Your task to perform on an android device: View the shopping cart on newegg. Image 0: 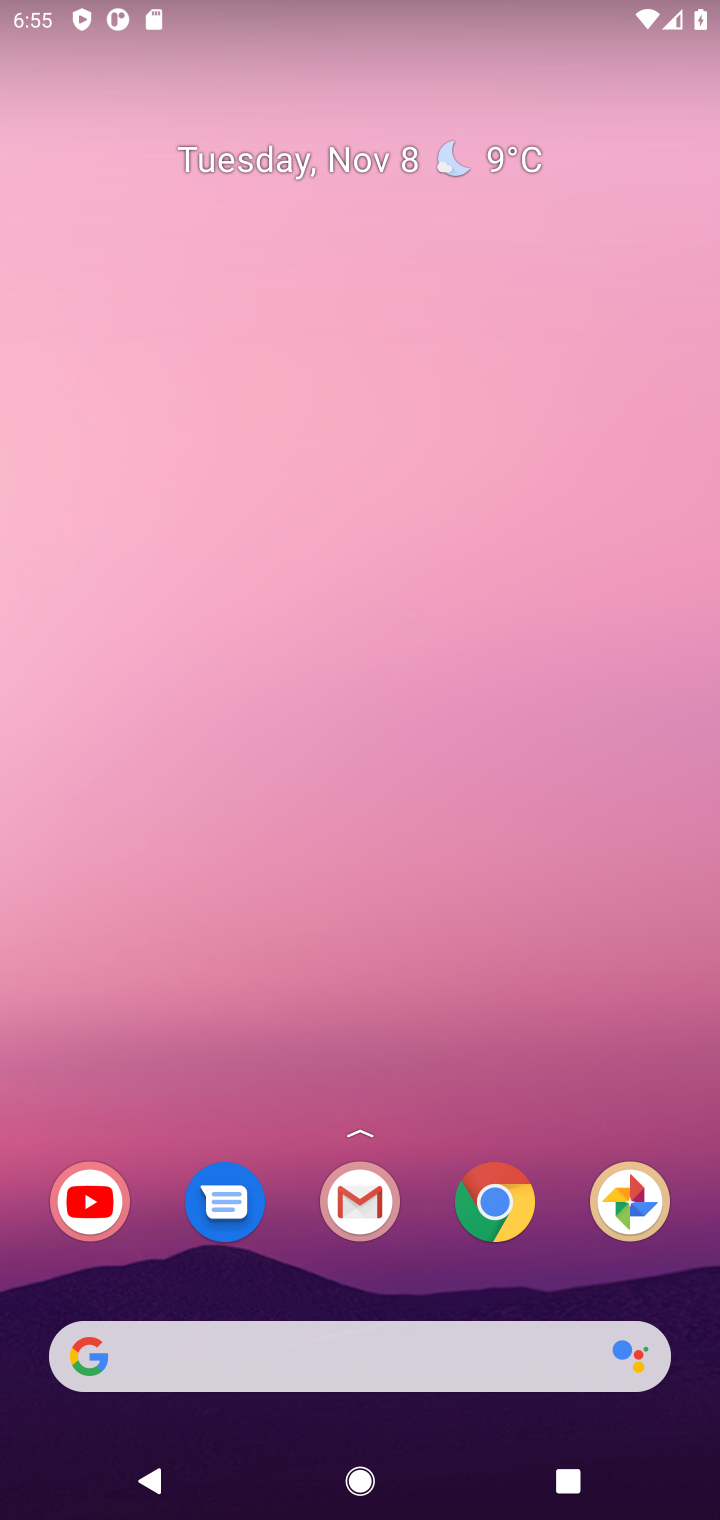
Step 0: click (341, 1381)
Your task to perform on an android device: View the shopping cart on newegg. Image 1: 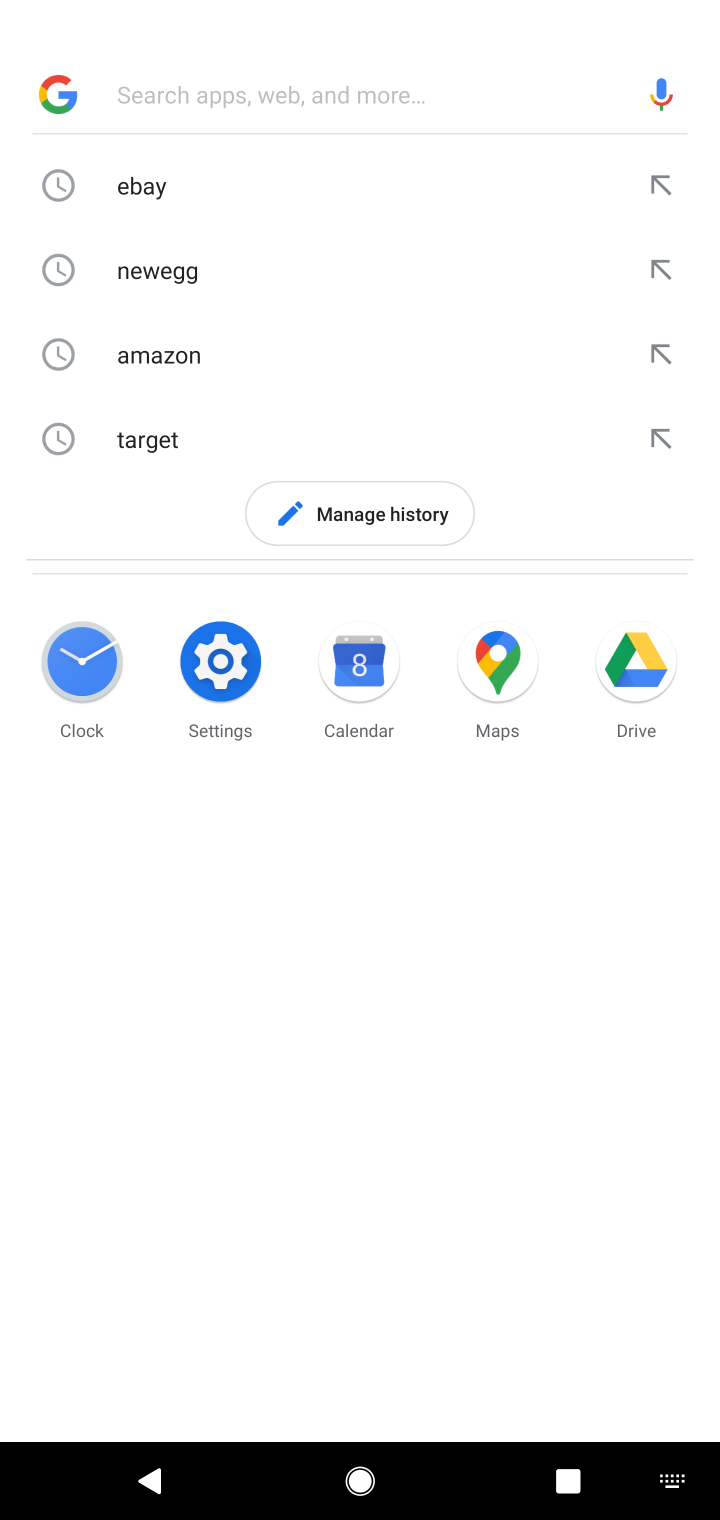
Step 1: click (265, 290)
Your task to perform on an android device: View the shopping cart on newegg. Image 2: 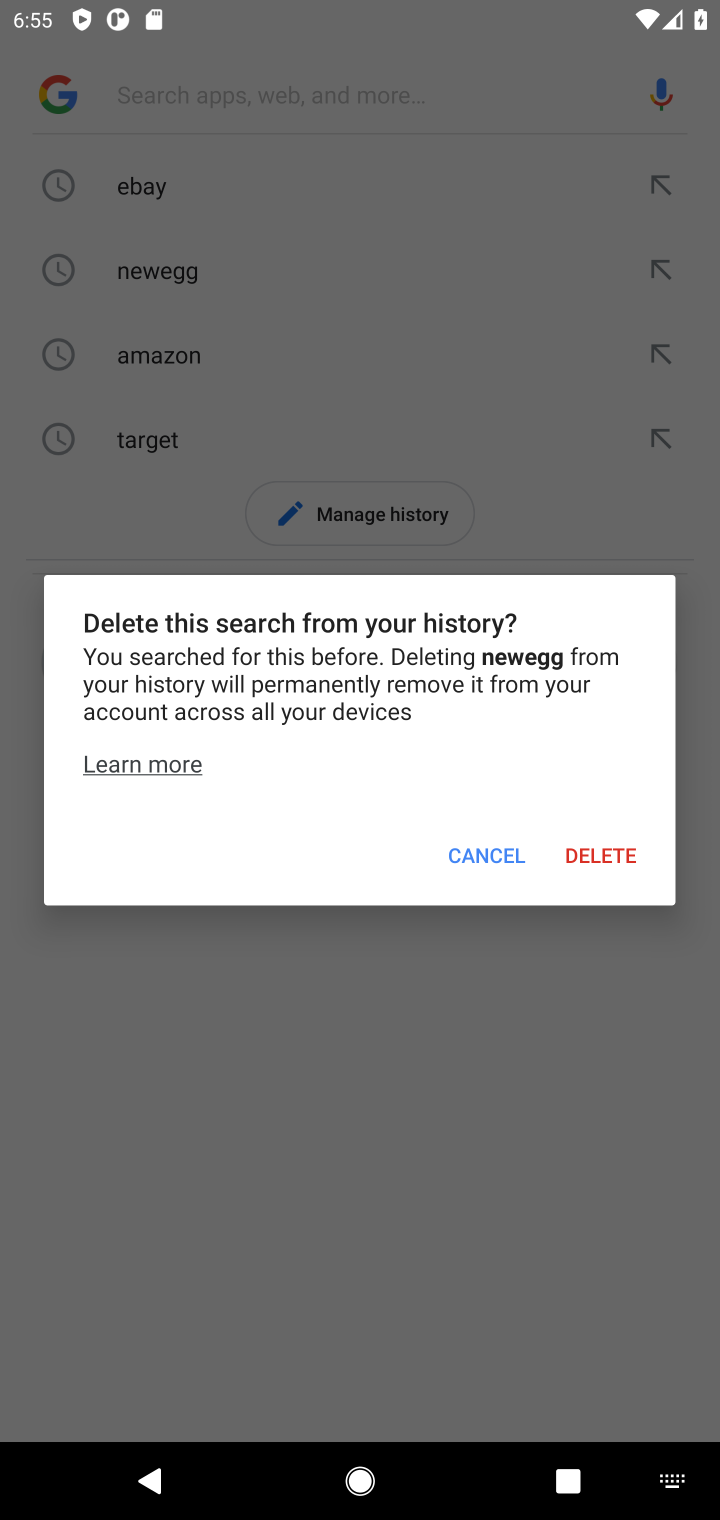
Step 2: click (497, 860)
Your task to perform on an android device: View the shopping cart on newegg. Image 3: 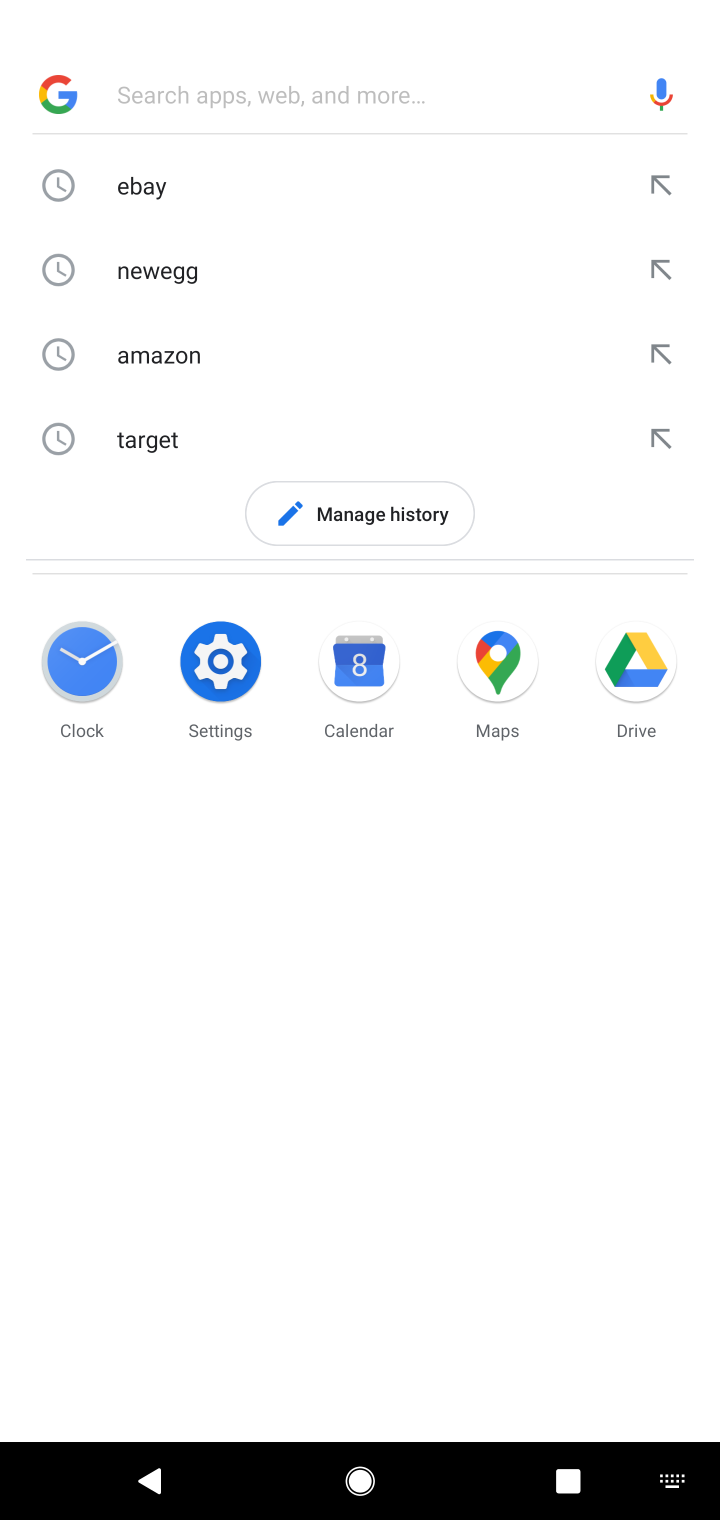
Step 3: type "newegg"
Your task to perform on an android device: View the shopping cart on newegg. Image 4: 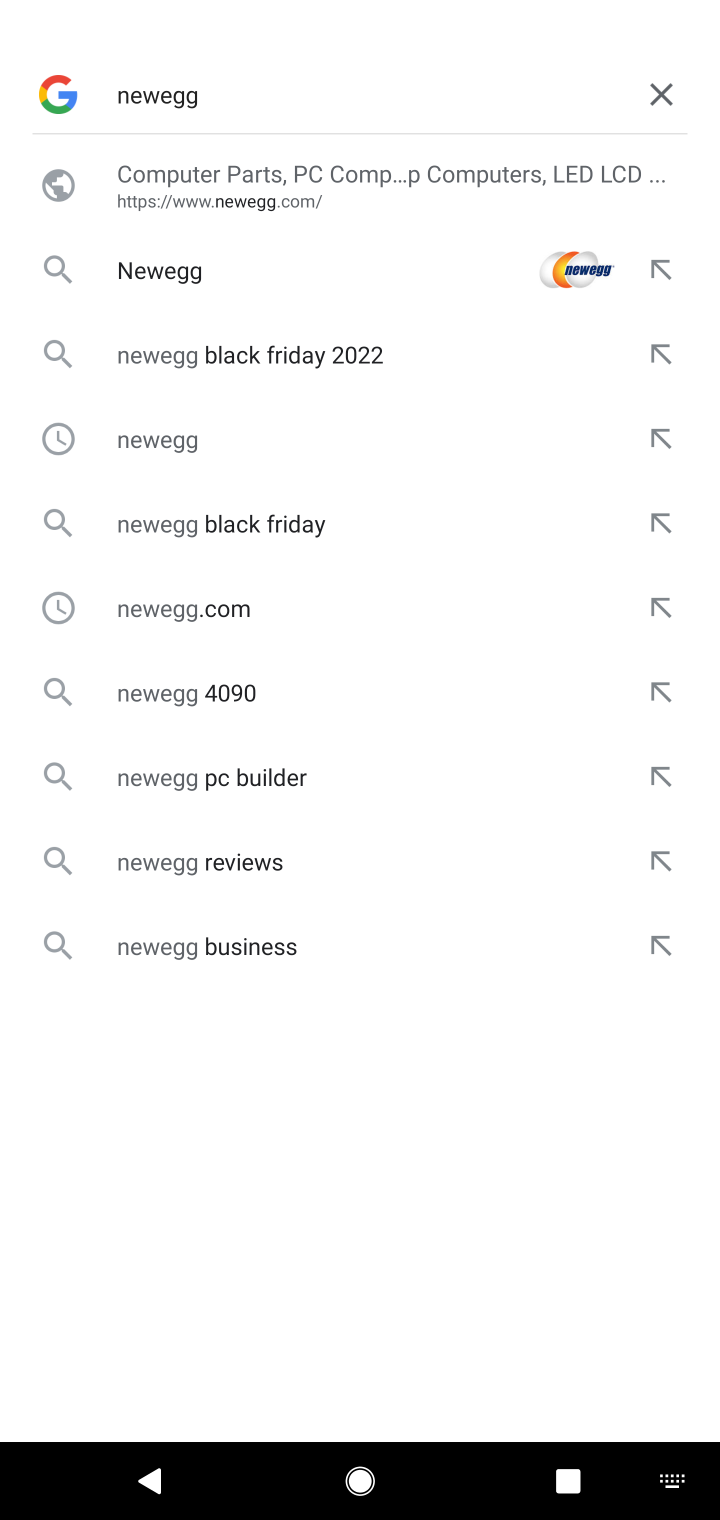
Step 4: type ""
Your task to perform on an android device: View the shopping cart on newegg. Image 5: 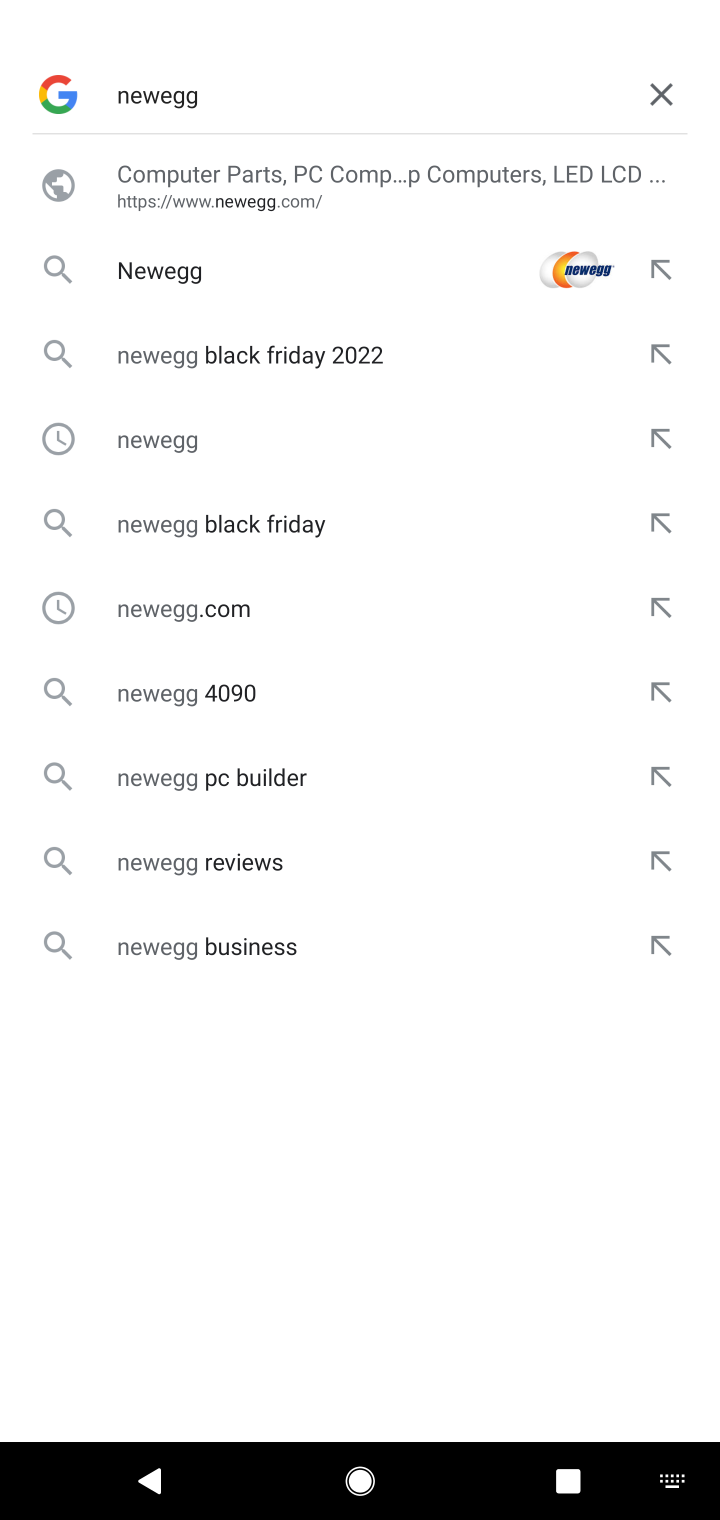
Step 5: press enter
Your task to perform on an android device: View the shopping cart on newegg. Image 6: 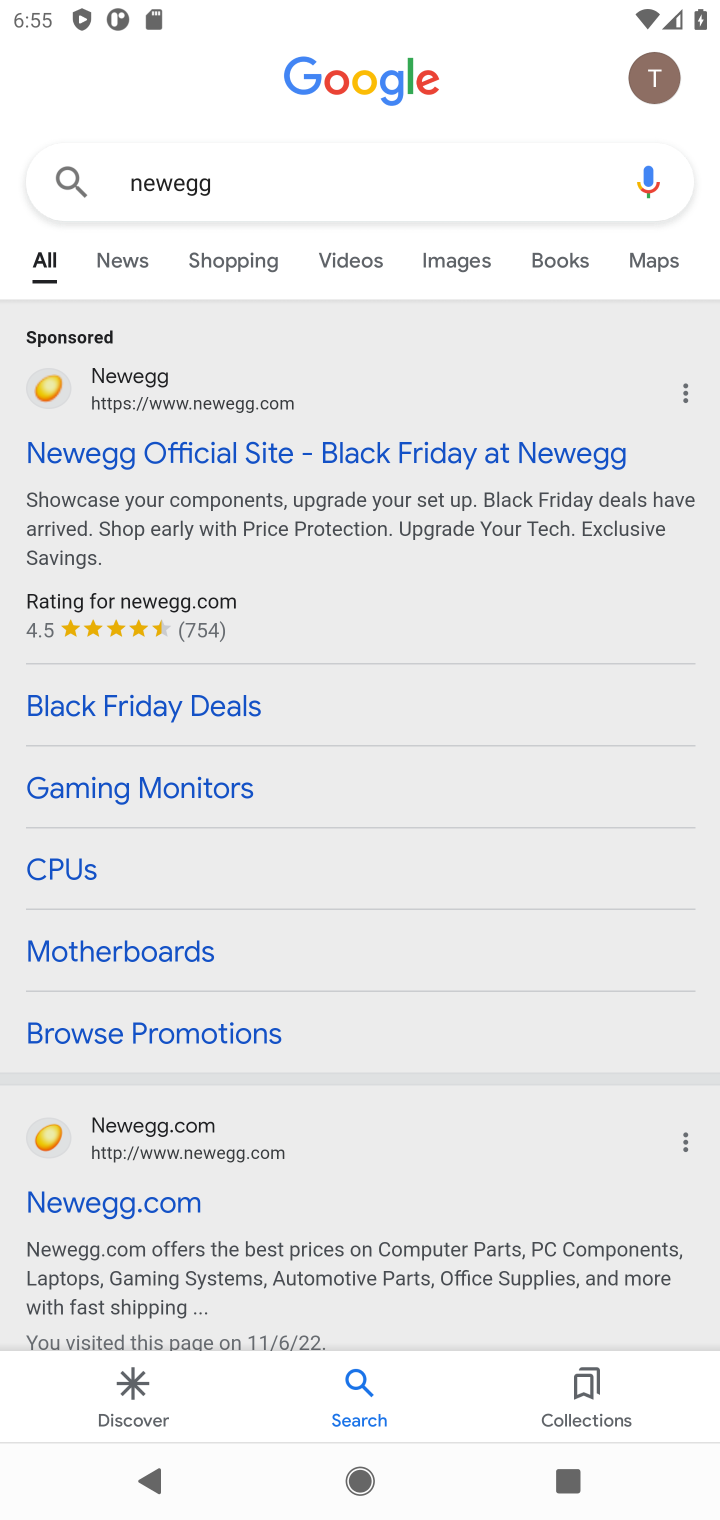
Step 6: click (184, 426)
Your task to perform on an android device: View the shopping cart on newegg. Image 7: 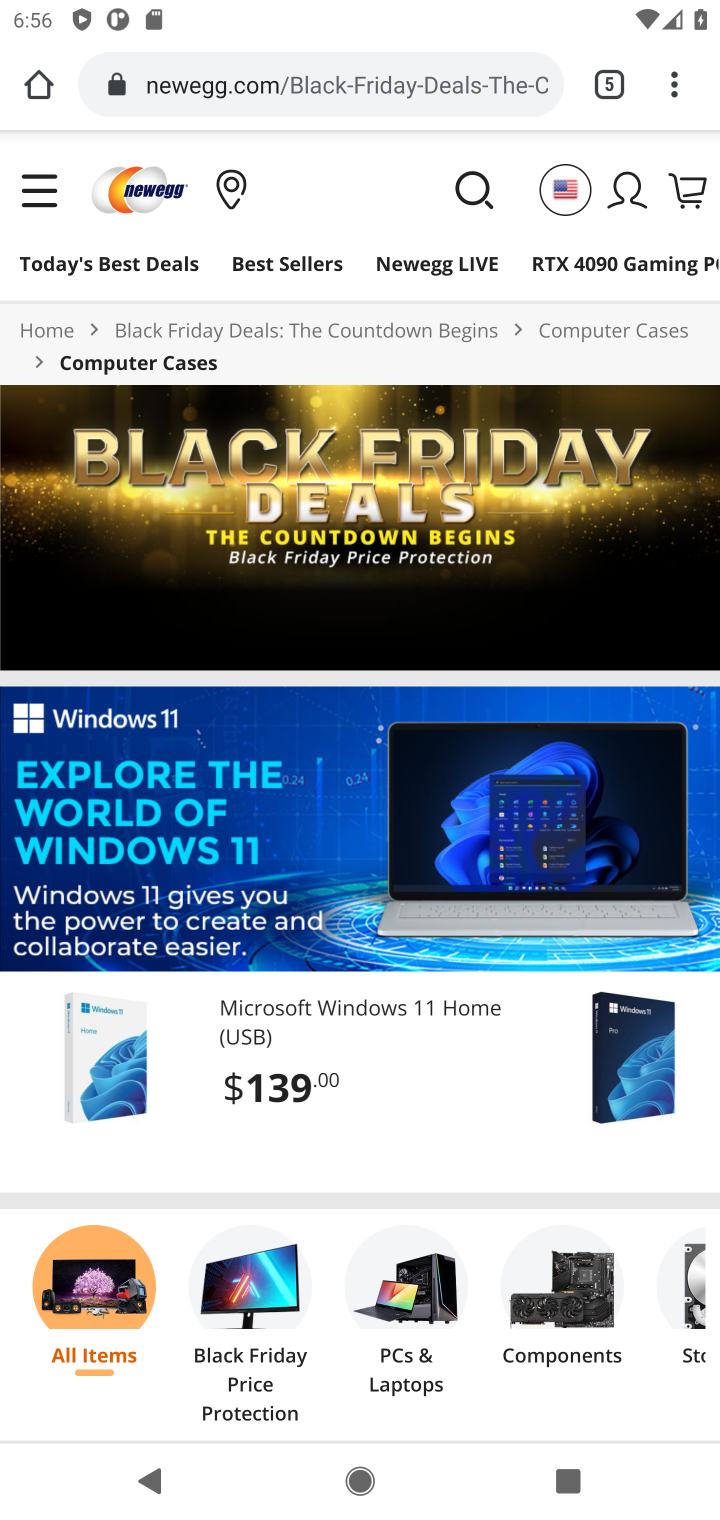
Step 7: drag from (333, 1172) to (386, 404)
Your task to perform on an android device: View the shopping cart on newegg. Image 8: 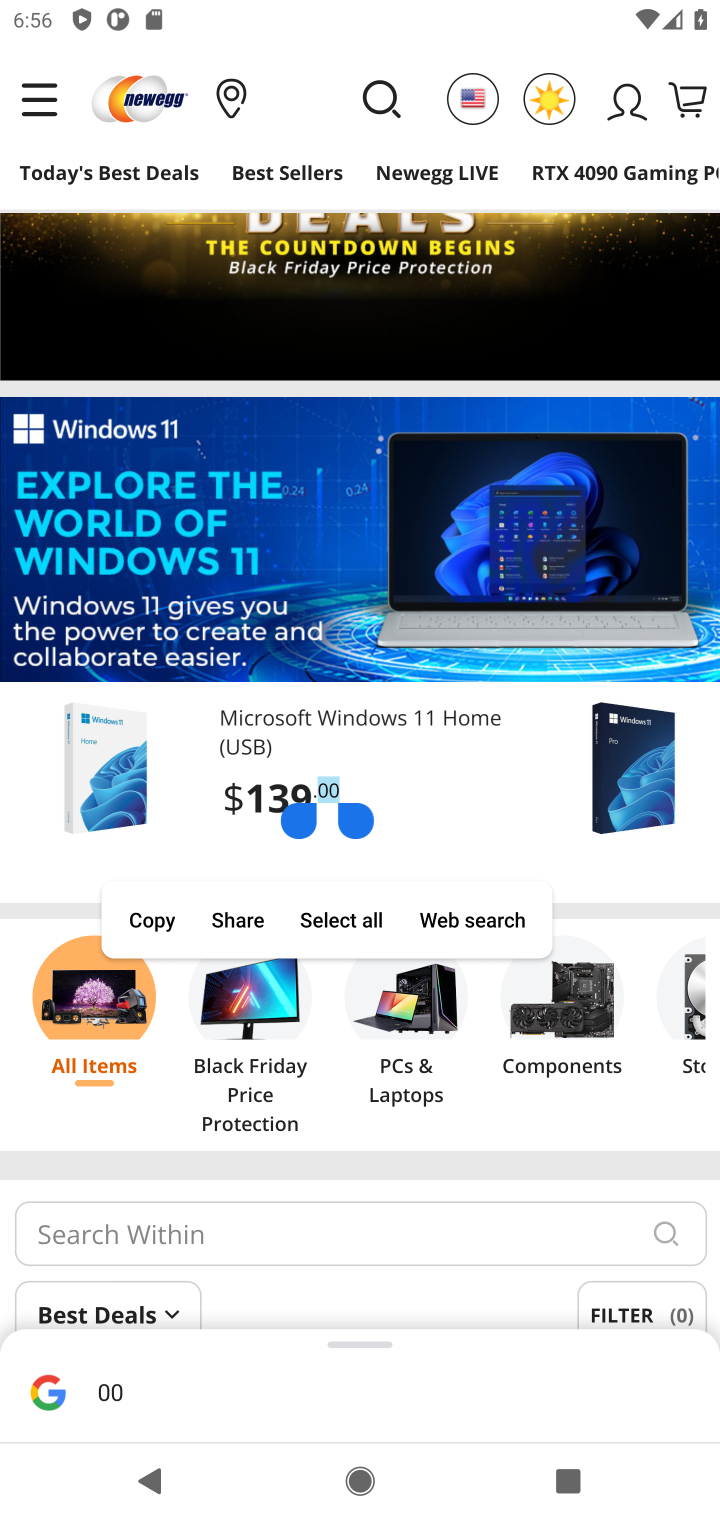
Step 8: click (217, 1218)
Your task to perform on an android device: View the shopping cart on newegg. Image 9: 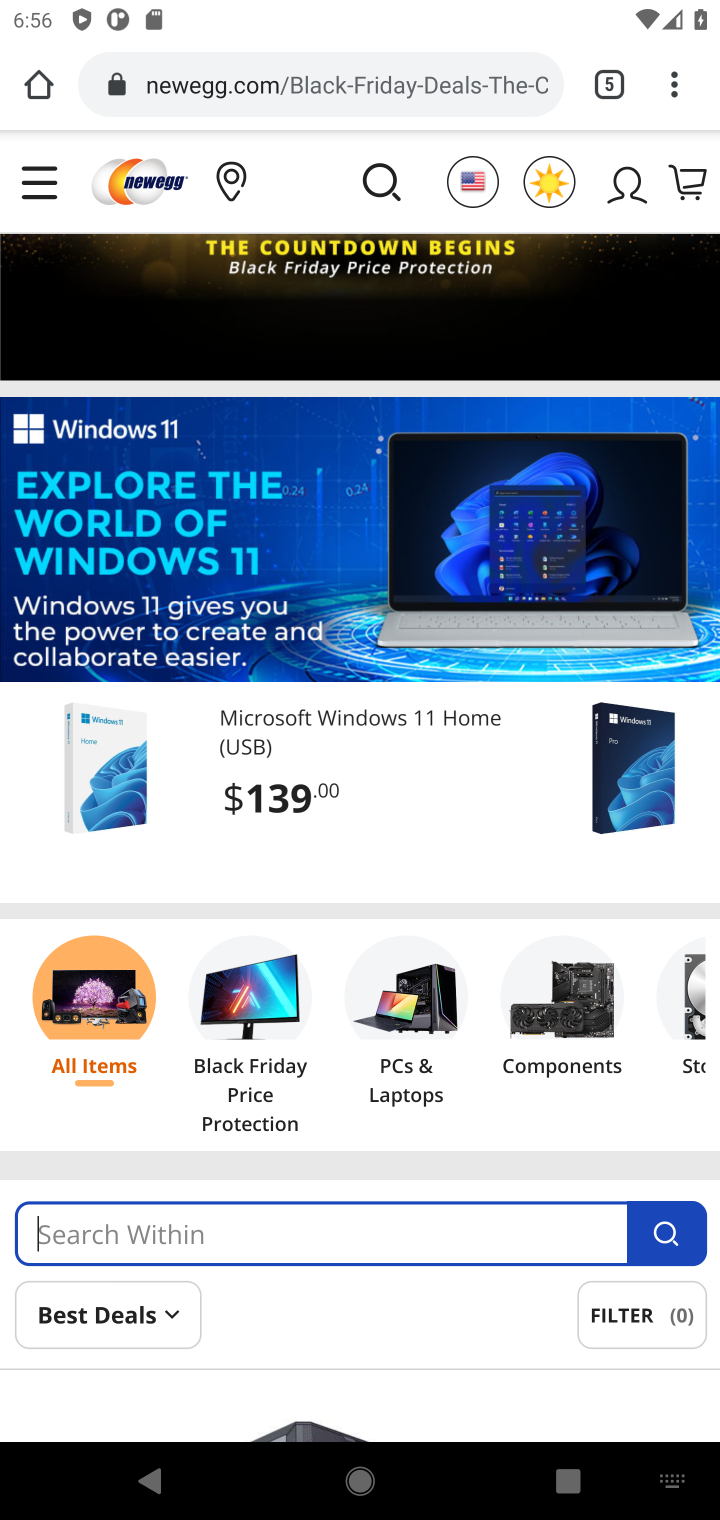
Step 9: click (683, 196)
Your task to perform on an android device: View the shopping cart on newegg. Image 10: 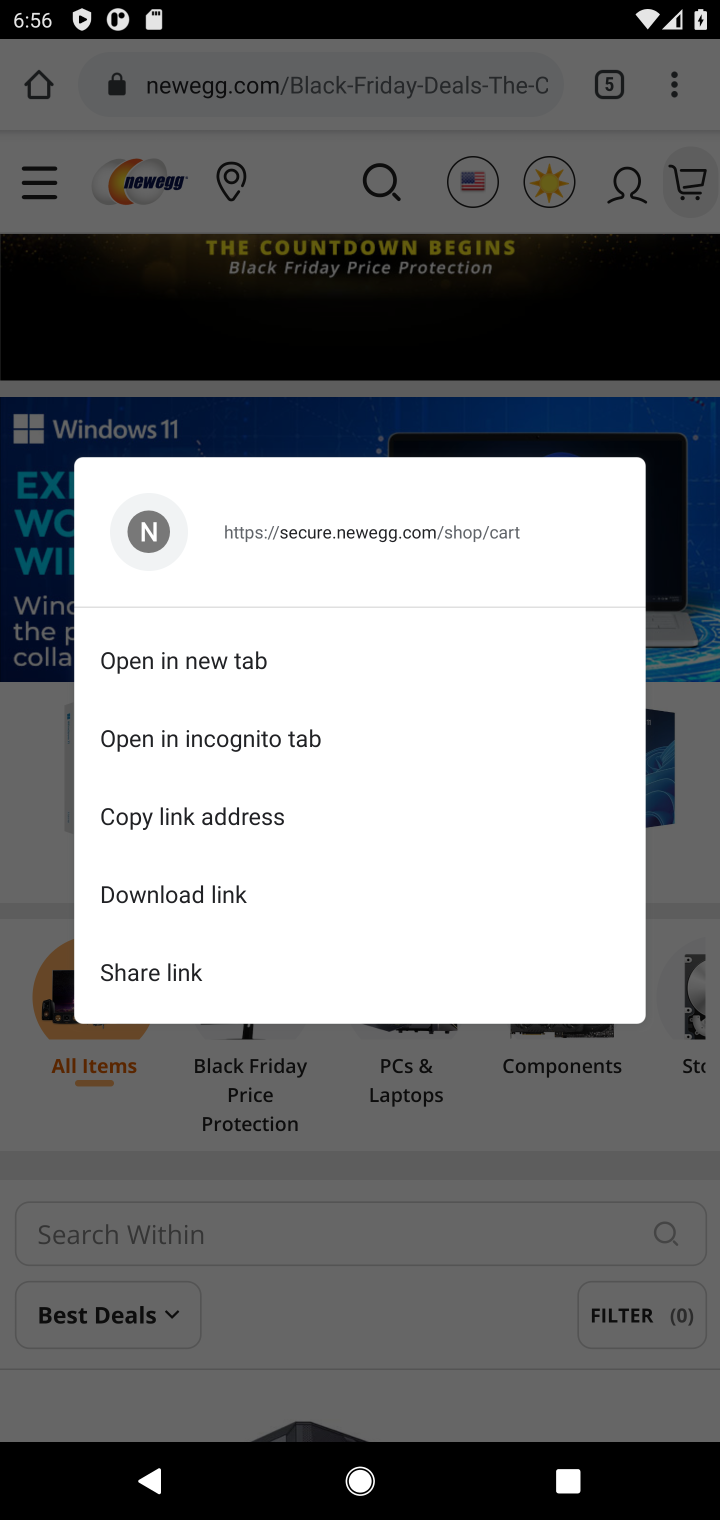
Step 10: click (683, 196)
Your task to perform on an android device: View the shopping cart on newegg. Image 11: 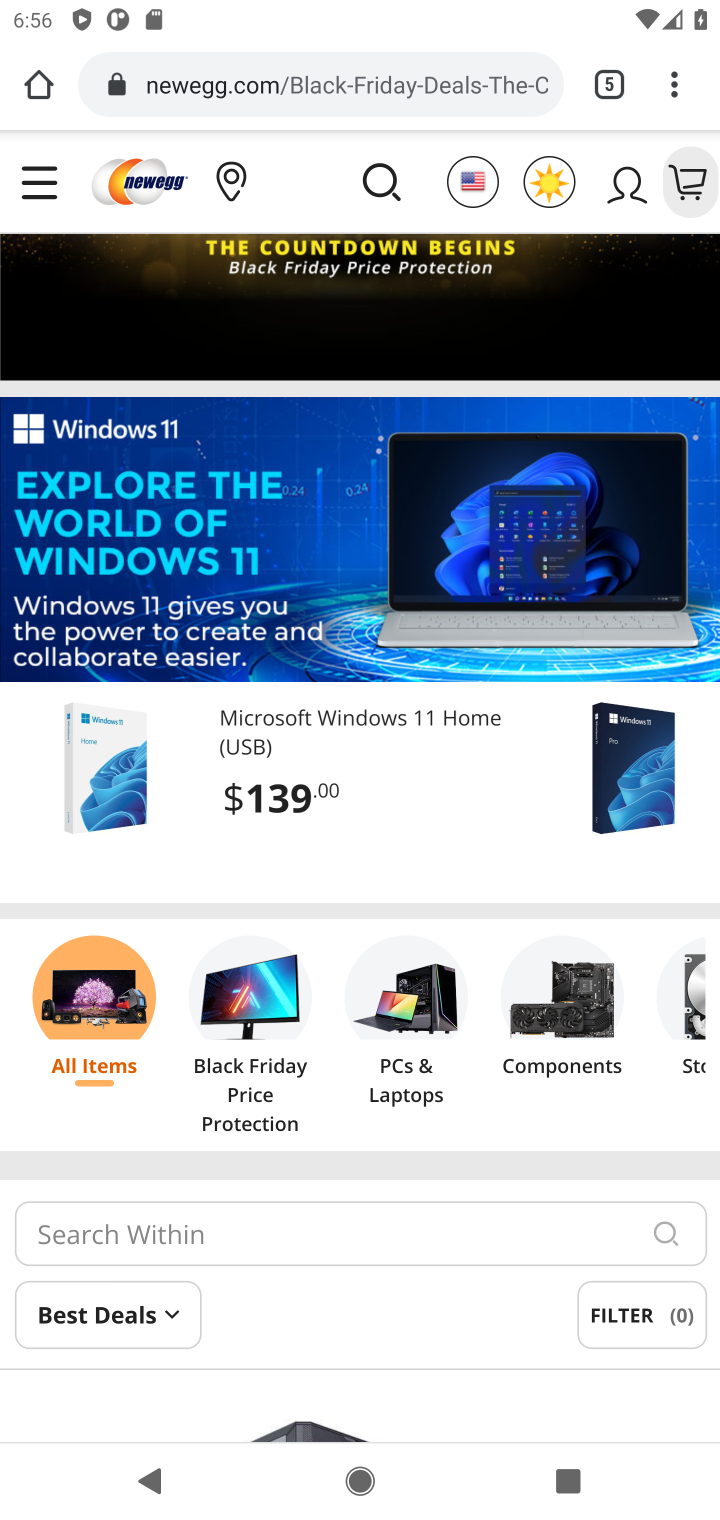
Step 11: click (687, 184)
Your task to perform on an android device: View the shopping cart on newegg. Image 12: 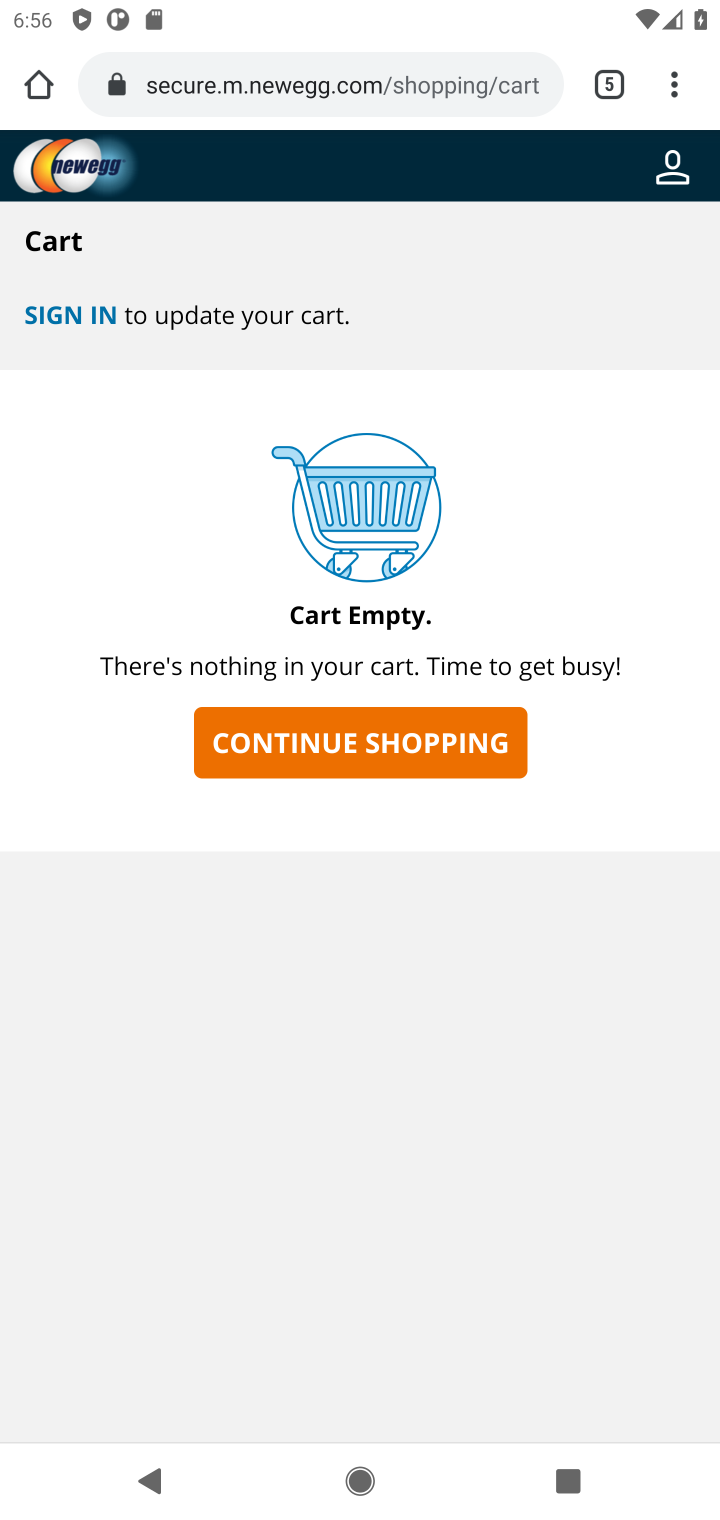
Step 12: task complete